Your task to perform on an android device: open device folders in google photos Image 0: 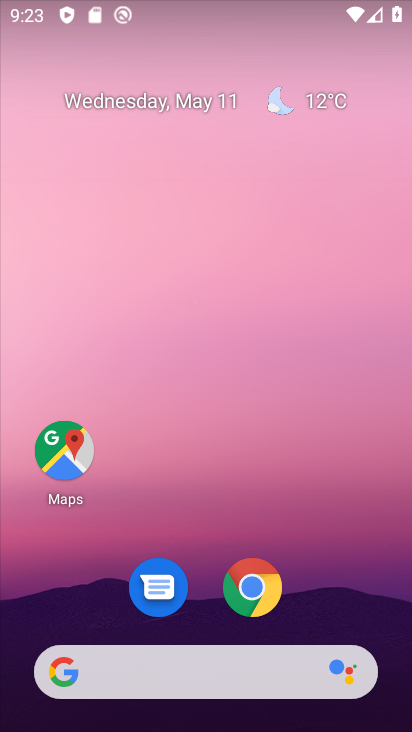
Step 0: drag from (352, 616) to (386, 4)
Your task to perform on an android device: open device folders in google photos Image 1: 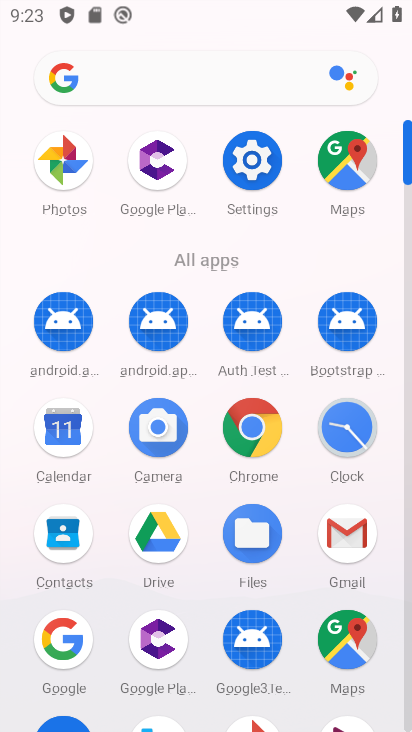
Step 1: click (60, 163)
Your task to perform on an android device: open device folders in google photos Image 2: 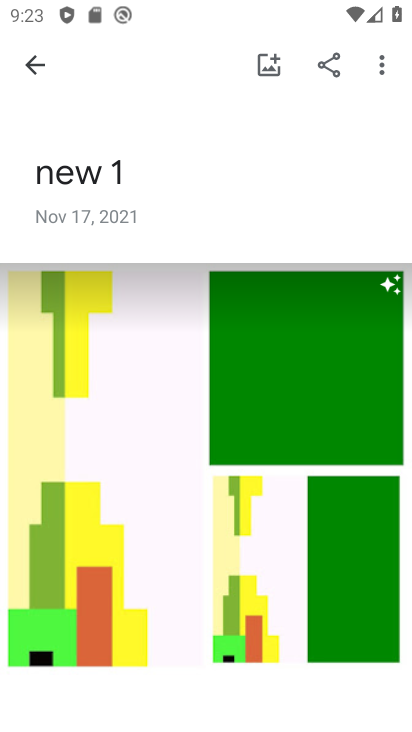
Step 2: click (30, 67)
Your task to perform on an android device: open device folders in google photos Image 3: 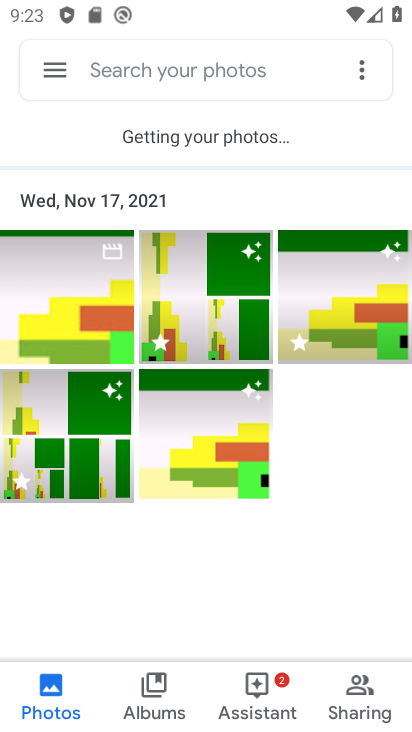
Step 3: click (47, 63)
Your task to perform on an android device: open device folders in google photos Image 4: 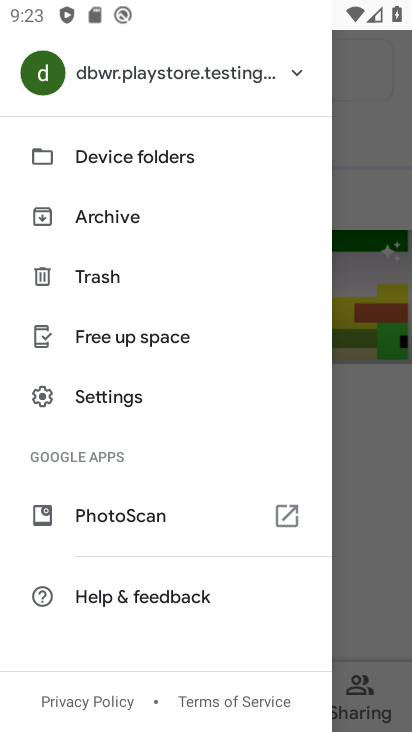
Step 4: click (59, 74)
Your task to perform on an android device: open device folders in google photos Image 5: 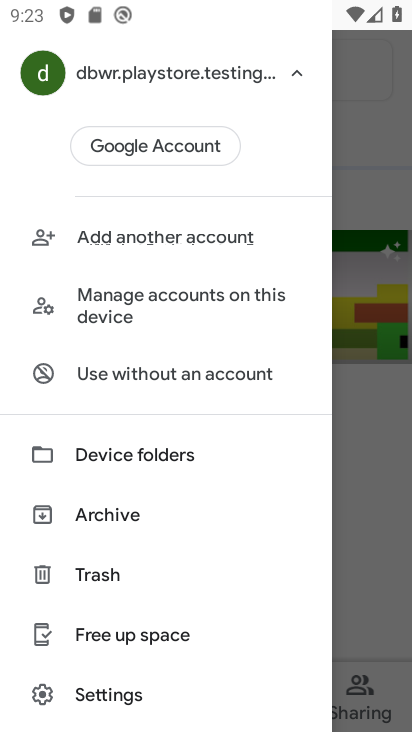
Step 5: click (116, 455)
Your task to perform on an android device: open device folders in google photos Image 6: 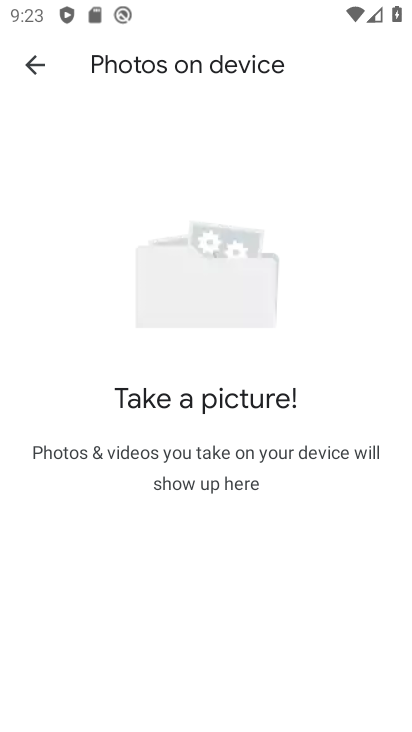
Step 6: task complete